Your task to perform on an android device: check data usage Image 0: 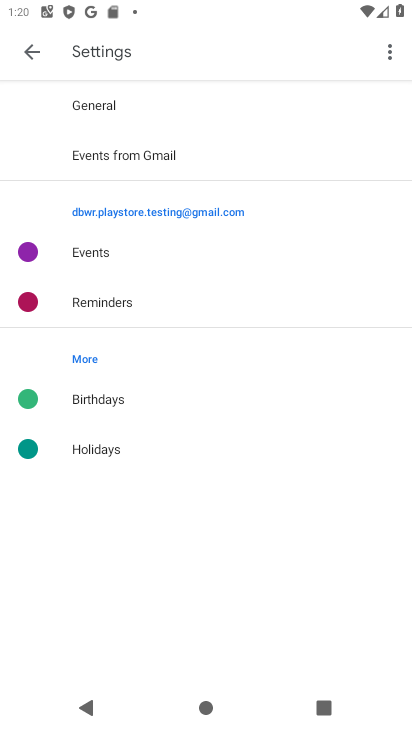
Step 0: press home button
Your task to perform on an android device: check data usage Image 1: 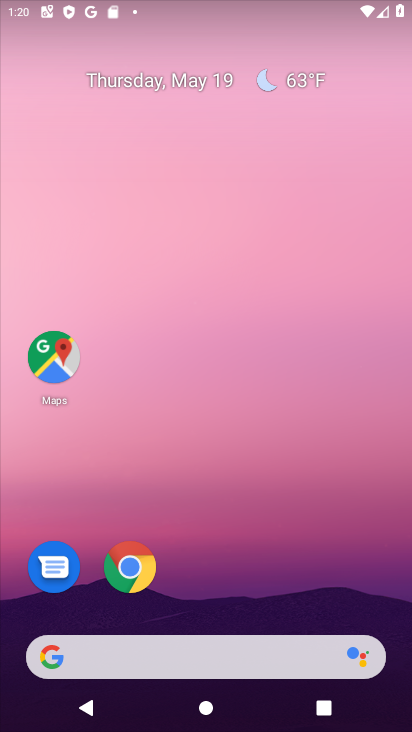
Step 1: drag from (328, 546) to (323, 50)
Your task to perform on an android device: check data usage Image 2: 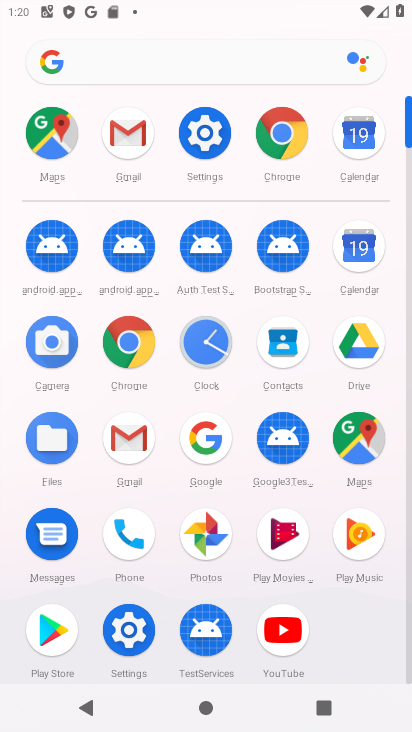
Step 2: click (215, 138)
Your task to perform on an android device: check data usage Image 3: 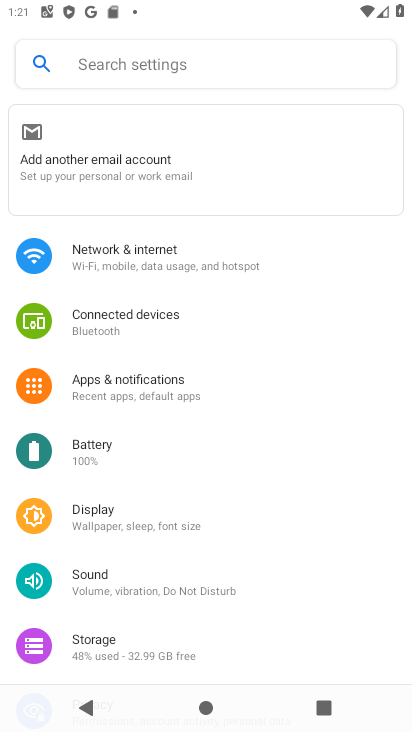
Step 3: click (82, 275)
Your task to perform on an android device: check data usage Image 4: 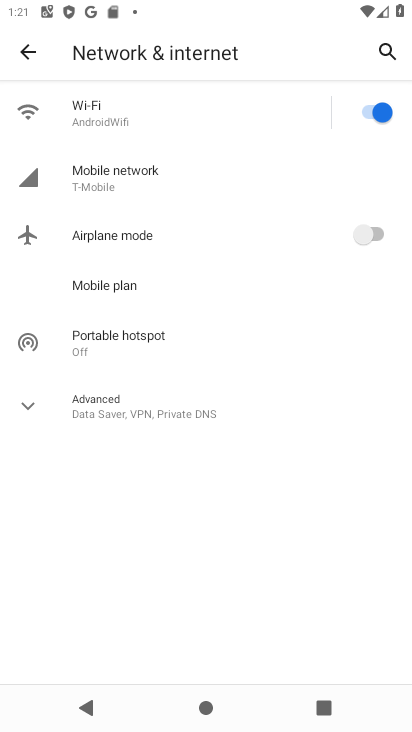
Step 4: click (106, 193)
Your task to perform on an android device: check data usage Image 5: 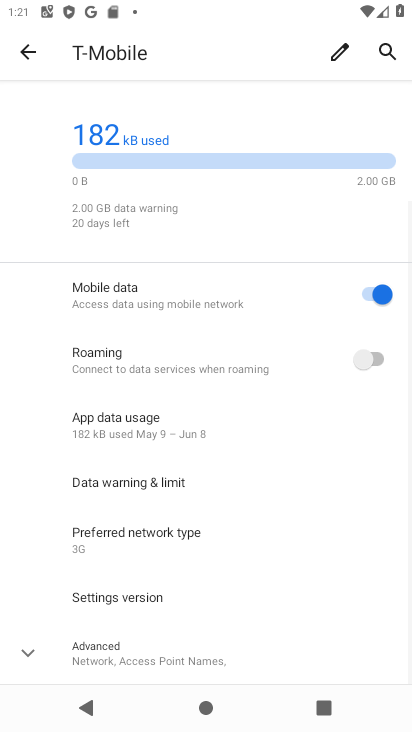
Step 5: task complete